Your task to perform on an android device: Open Android settings Image 0: 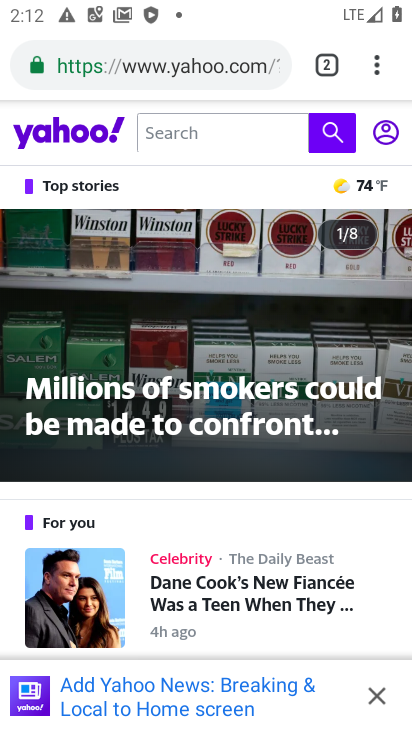
Step 0: press home button
Your task to perform on an android device: Open Android settings Image 1: 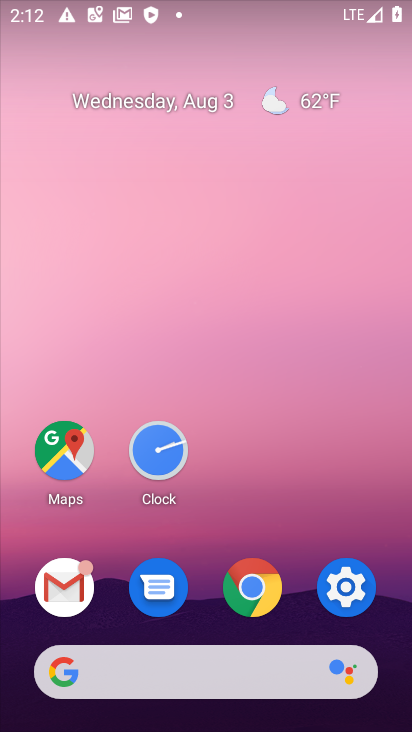
Step 1: click (347, 587)
Your task to perform on an android device: Open Android settings Image 2: 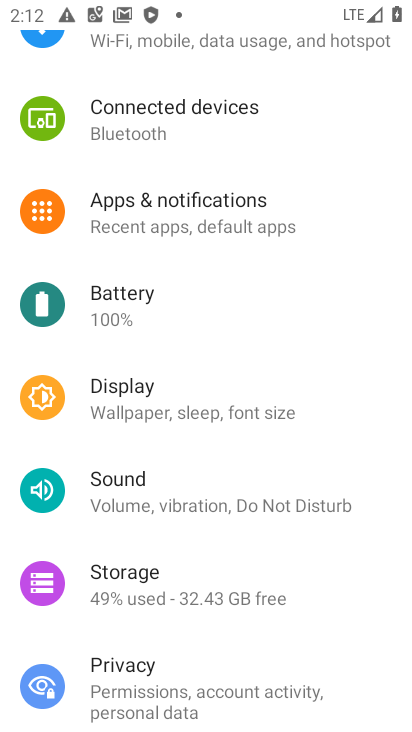
Step 2: drag from (232, 655) to (200, 181)
Your task to perform on an android device: Open Android settings Image 3: 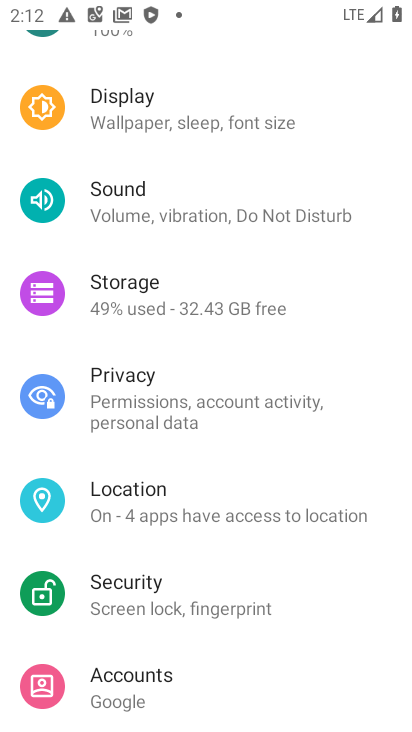
Step 3: drag from (275, 577) to (242, 151)
Your task to perform on an android device: Open Android settings Image 4: 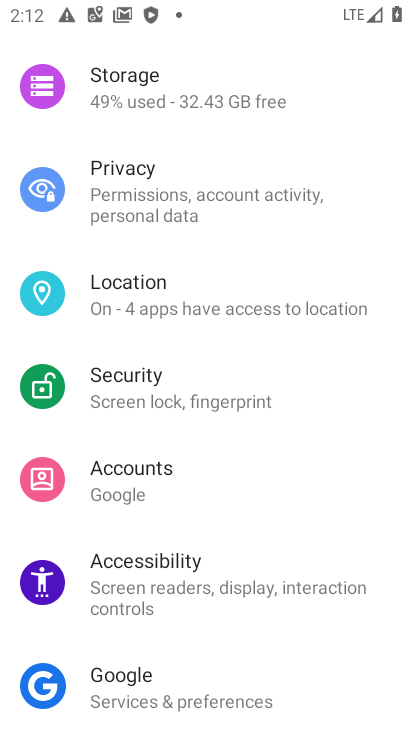
Step 4: drag from (315, 620) to (314, 198)
Your task to perform on an android device: Open Android settings Image 5: 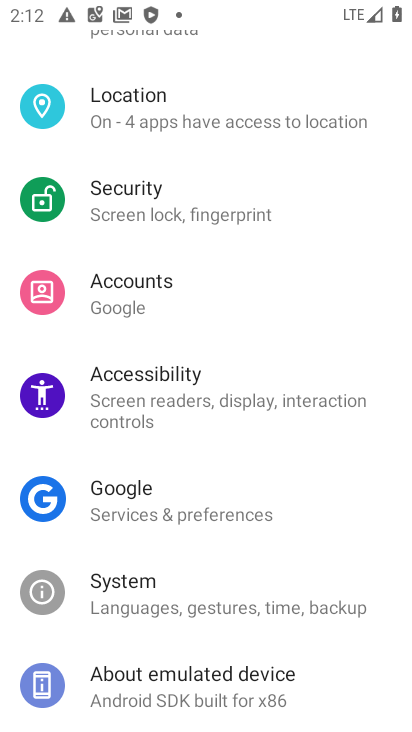
Step 5: drag from (284, 559) to (269, 19)
Your task to perform on an android device: Open Android settings Image 6: 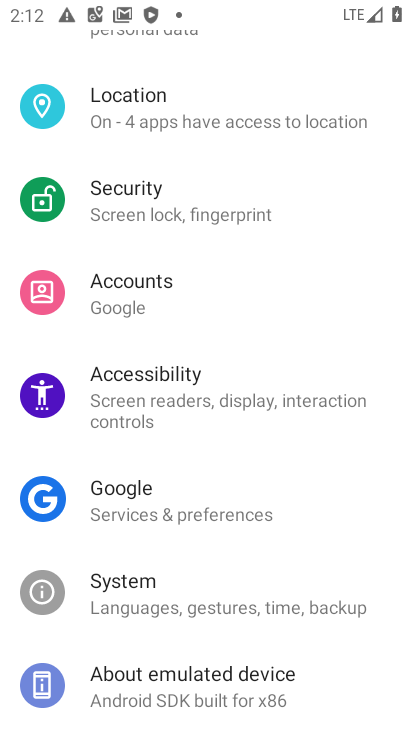
Step 6: click (178, 669)
Your task to perform on an android device: Open Android settings Image 7: 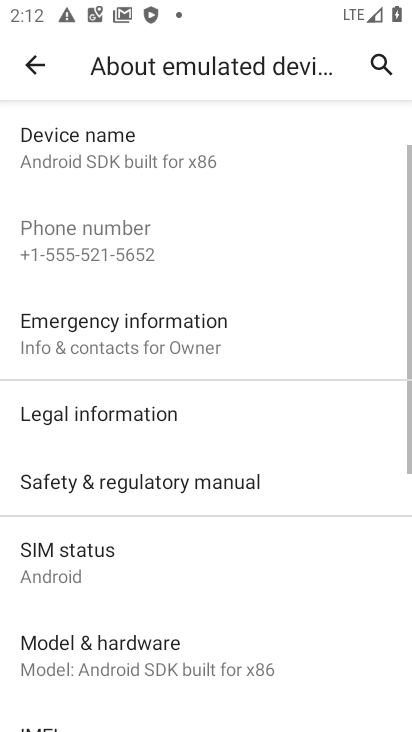
Step 7: drag from (223, 558) to (222, 138)
Your task to perform on an android device: Open Android settings Image 8: 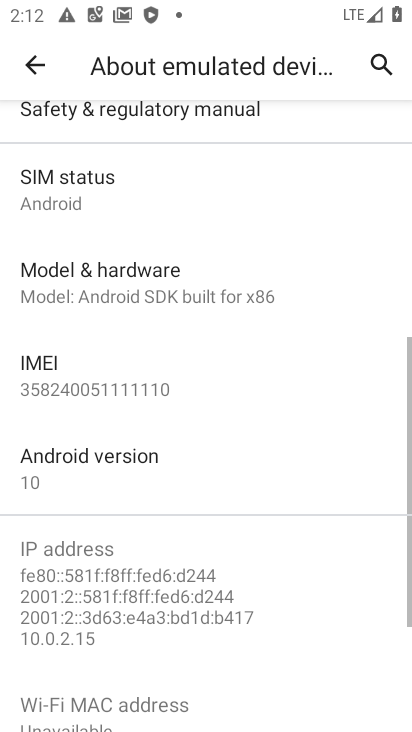
Step 8: click (95, 454)
Your task to perform on an android device: Open Android settings Image 9: 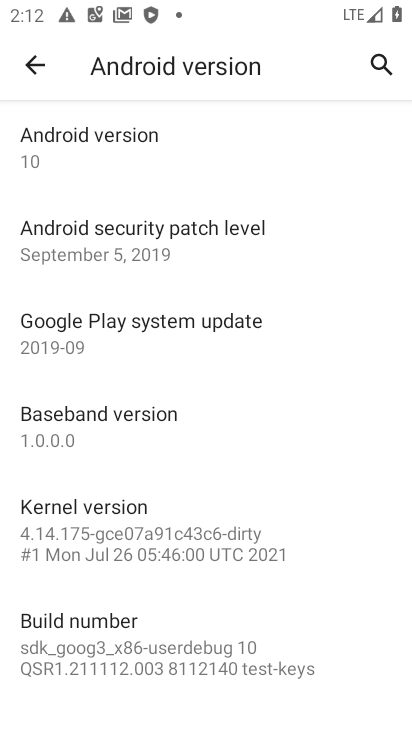
Step 9: task complete